Your task to perform on an android device: Open battery settings Image 0: 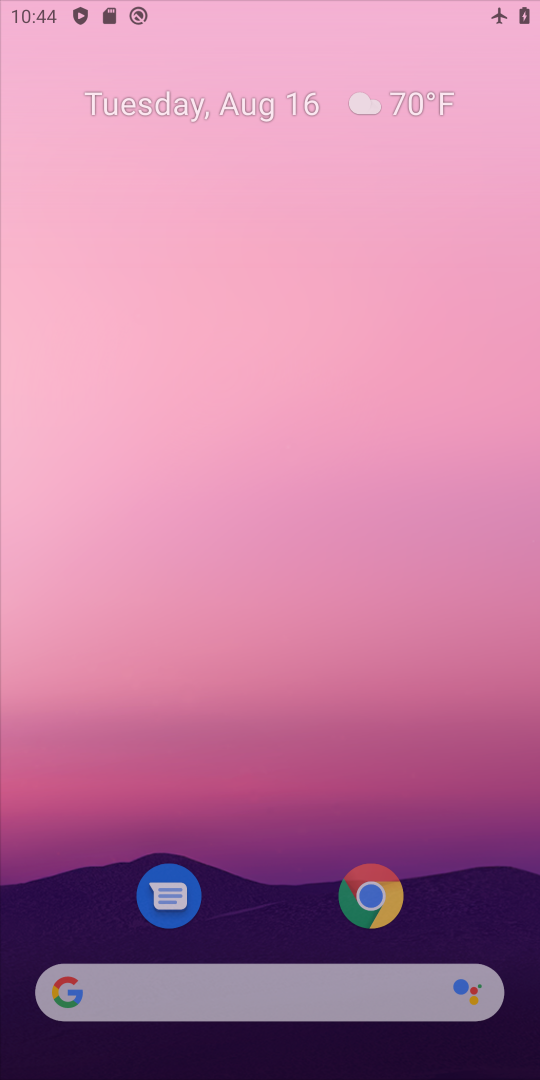
Step 0: click (248, 292)
Your task to perform on an android device: Open battery settings Image 1: 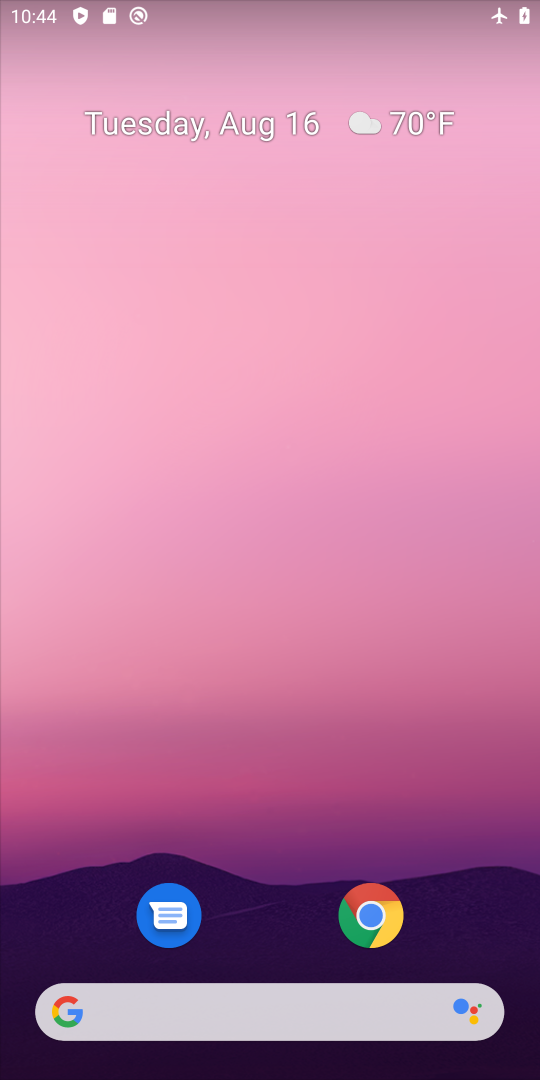
Step 1: drag from (321, 944) to (456, 97)
Your task to perform on an android device: Open battery settings Image 2: 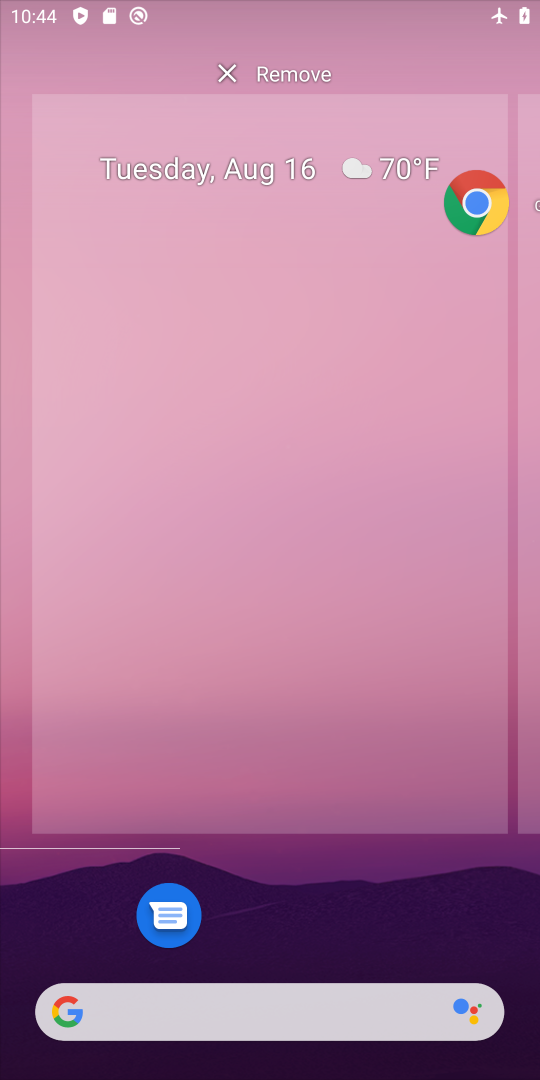
Step 2: click (169, 430)
Your task to perform on an android device: Open battery settings Image 3: 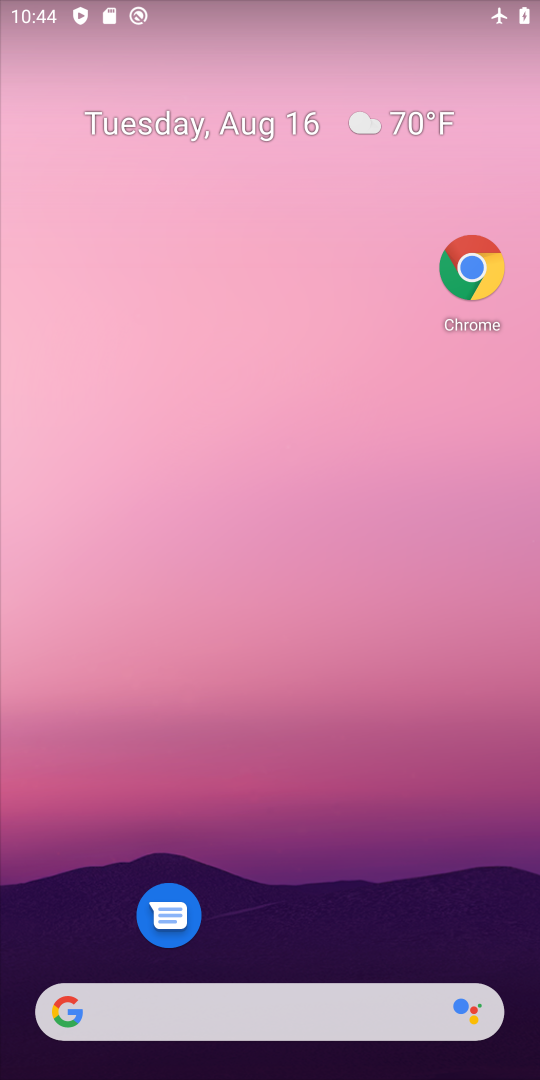
Step 3: drag from (290, 970) to (394, 0)
Your task to perform on an android device: Open battery settings Image 4: 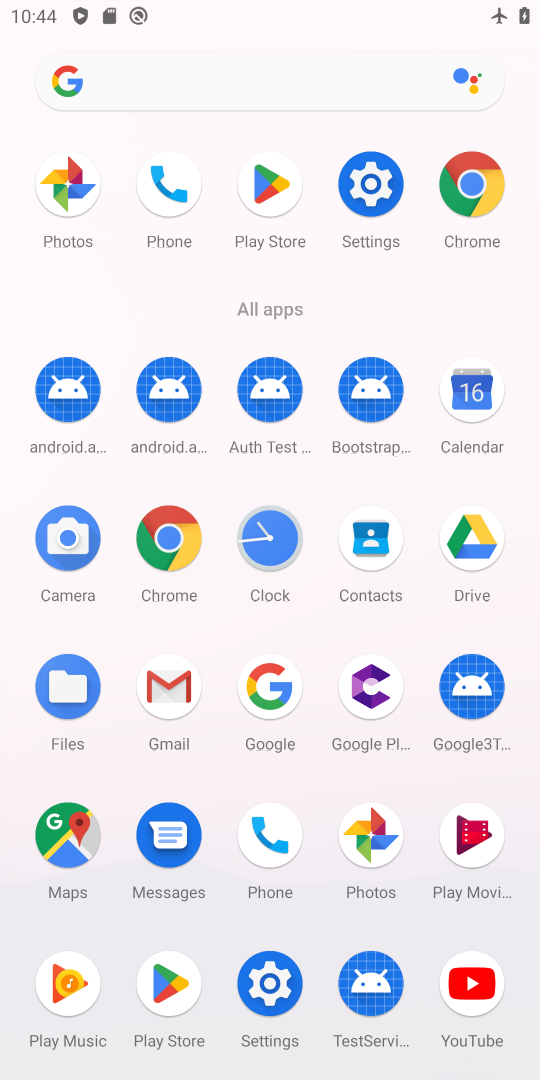
Step 4: click (389, 169)
Your task to perform on an android device: Open battery settings Image 5: 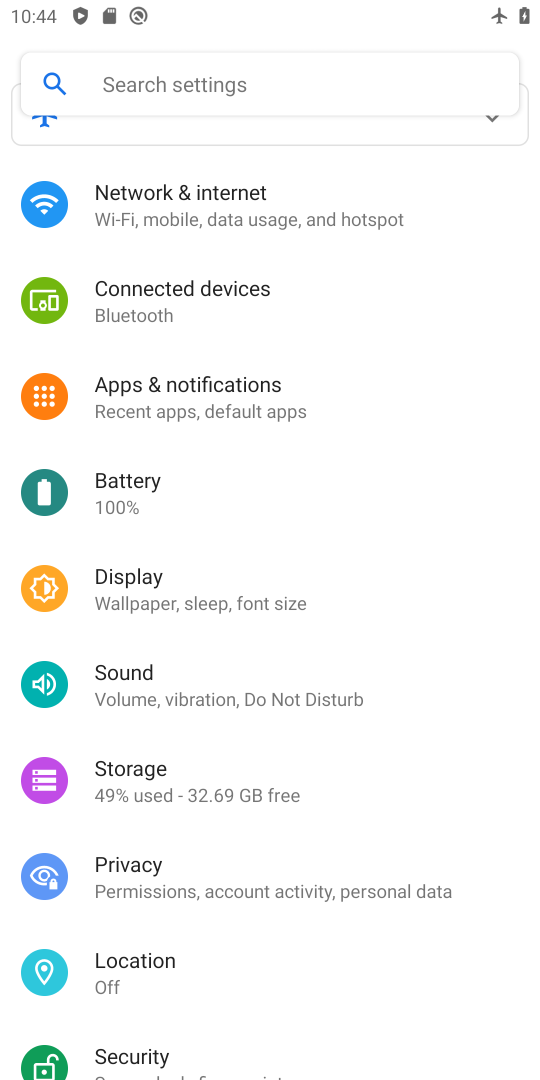
Step 5: click (158, 503)
Your task to perform on an android device: Open battery settings Image 6: 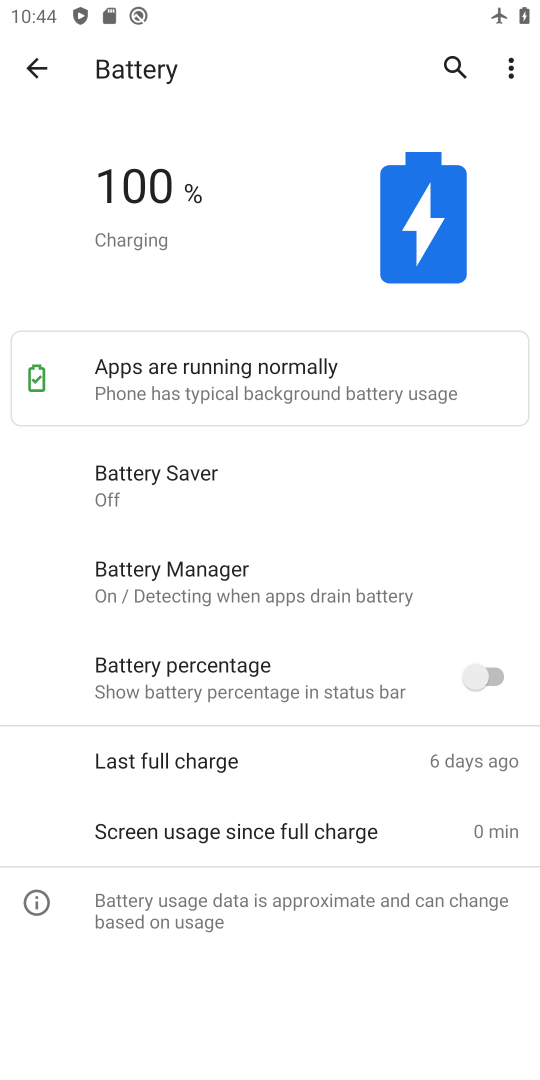
Step 6: click (148, 239)
Your task to perform on an android device: Open battery settings Image 7: 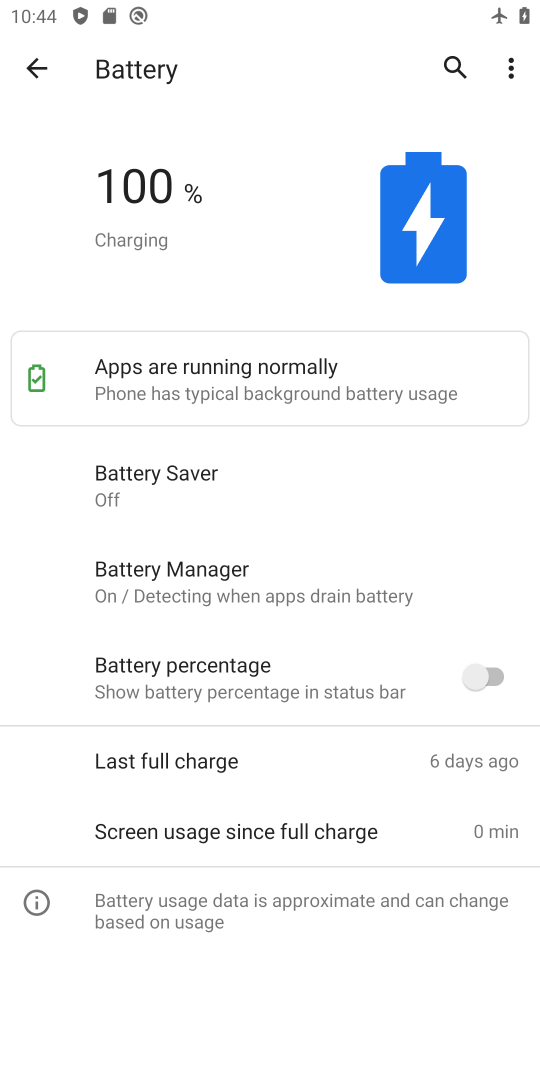
Step 7: task complete